Your task to perform on an android device: Set the phone to "Do not disturb". Image 0: 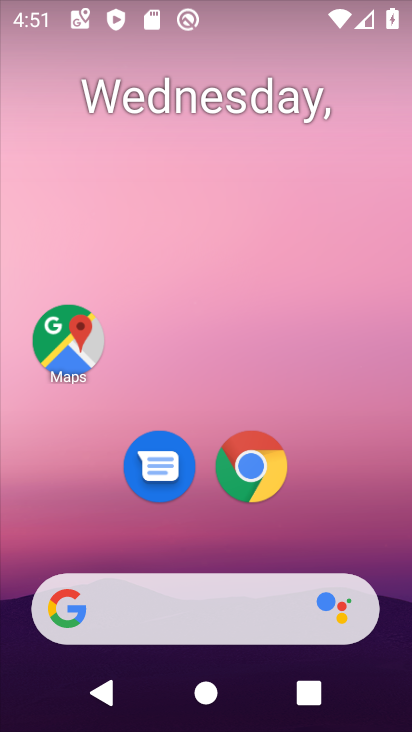
Step 0: drag from (397, 608) to (310, 136)
Your task to perform on an android device: Set the phone to "Do not disturb". Image 1: 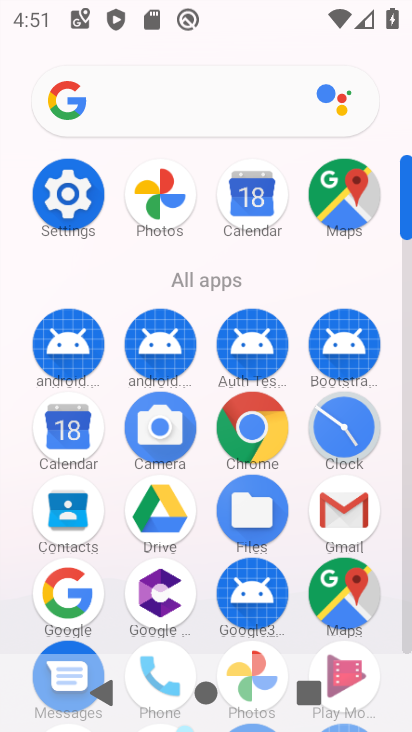
Step 1: click (404, 625)
Your task to perform on an android device: Set the phone to "Do not disturb". Image 2: 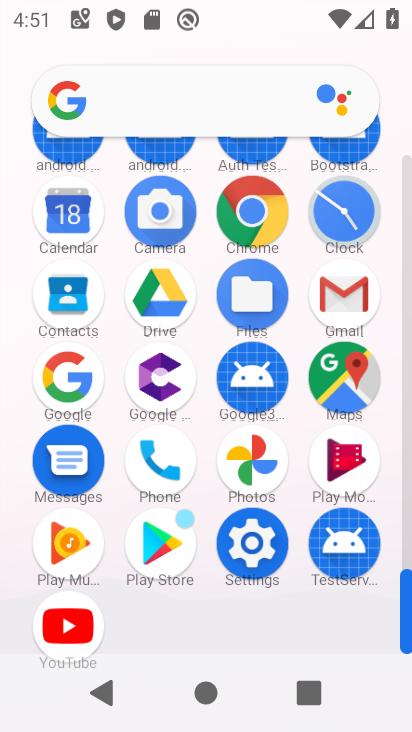
Step 2: click (254, 546)
Your task to perform on an android device: Set the phone to "Do not disturb". Image 3: 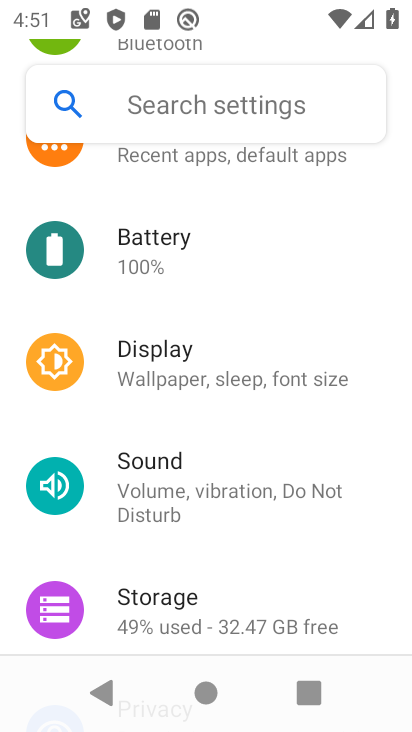
Step 3: click (180, 477)
Your task to perform on an android device: Set the phone to "Do not disturb". Image 4: 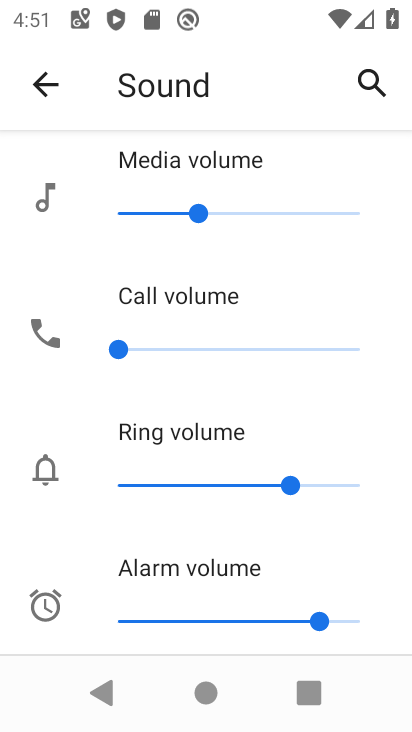
Step 4: drag from (252, 586) to (278, 210)
Your task to perform on an android device: Set the phone to "Do not disturb". Image 5: 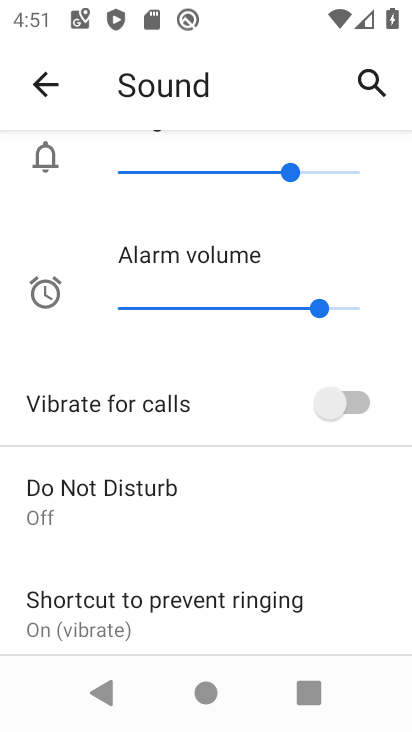
Step 5: click (68, 501)
Your task to perform on an android device: Set the phone to "Do not disturb". Image 6: 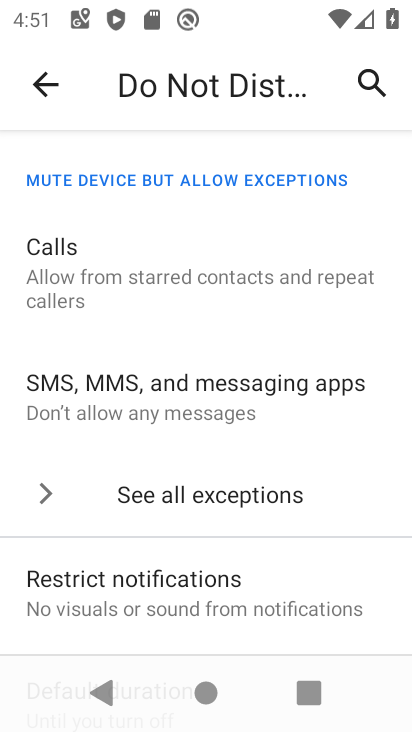
Step 6: drag from (145, 592) to (205, 228)
Your task to perform on an android device: Set the phone to "Do not disturb". Image 7: 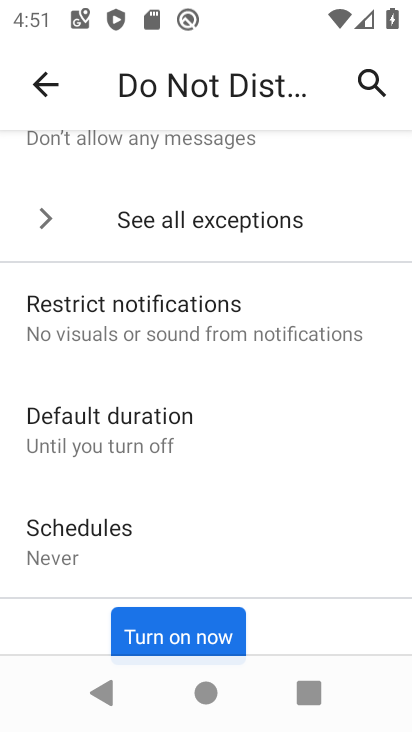
Step 7: click (173, 629)
Your task to perform on an android device: Set the phone to "Do not disturb". Image 8: 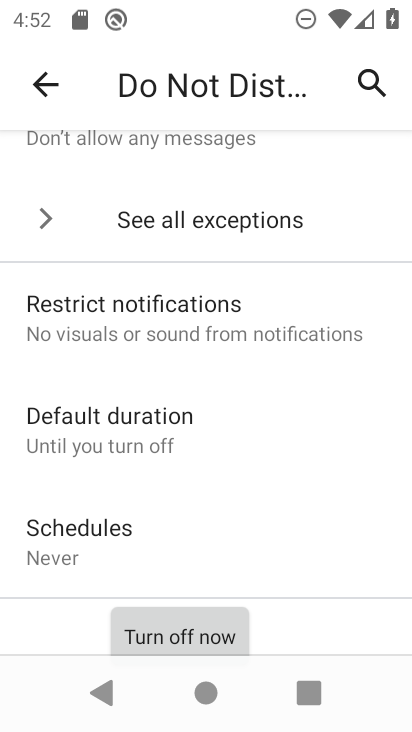
Step 8: task complete